Your task to perform on an android device: Search for top rated sushi restaurant Image 0: 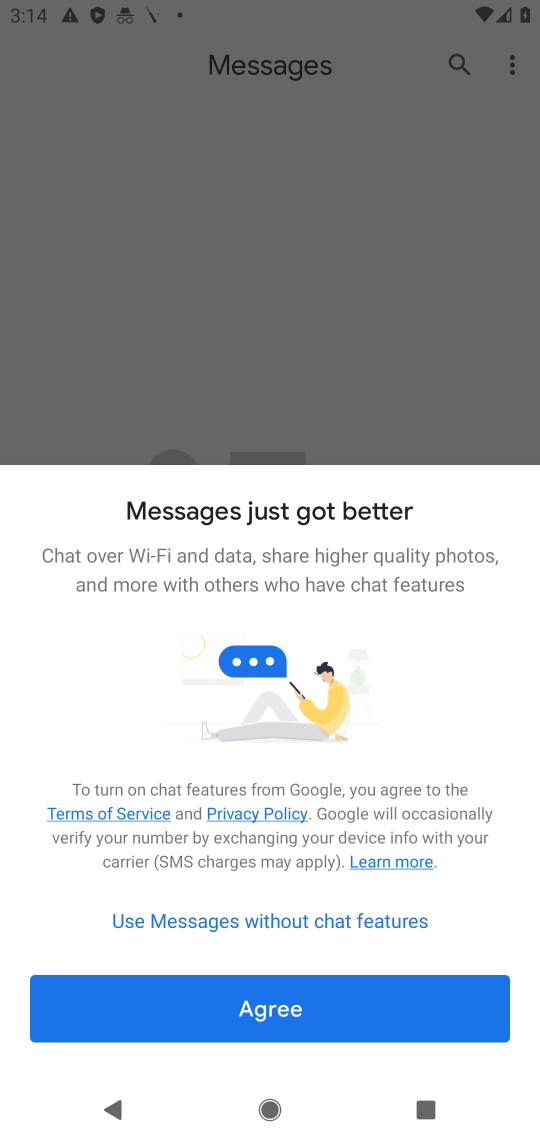
Step 0: press home button
Your task to perform on an android device: Search for top rated sushi restaurant Image 1: 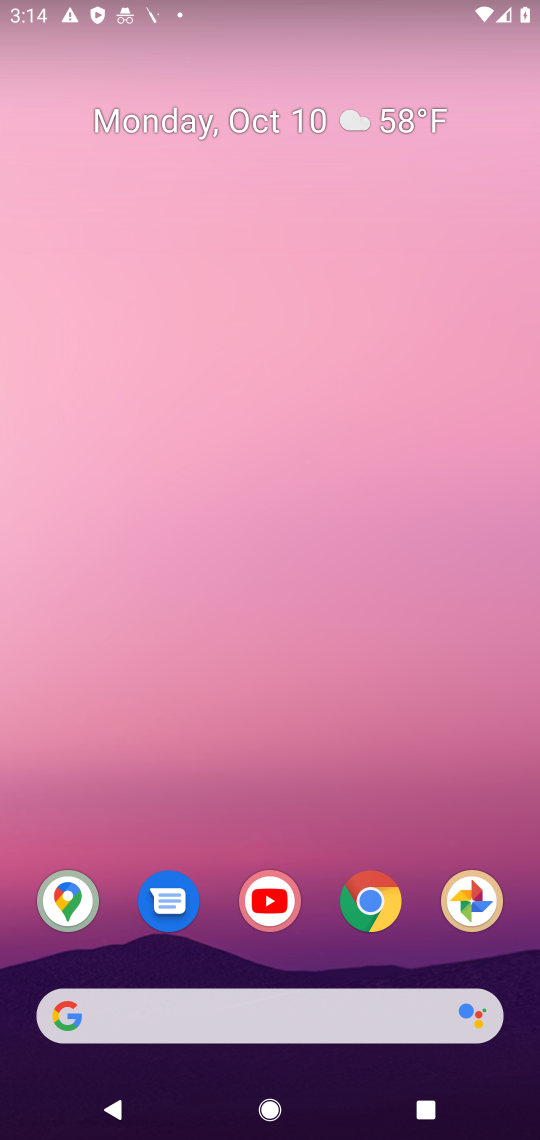
Step 1: drag from (278, 610) to (345, 239)
Your task to perform on an android device: Search for top rated sushi restaurant Image 2: 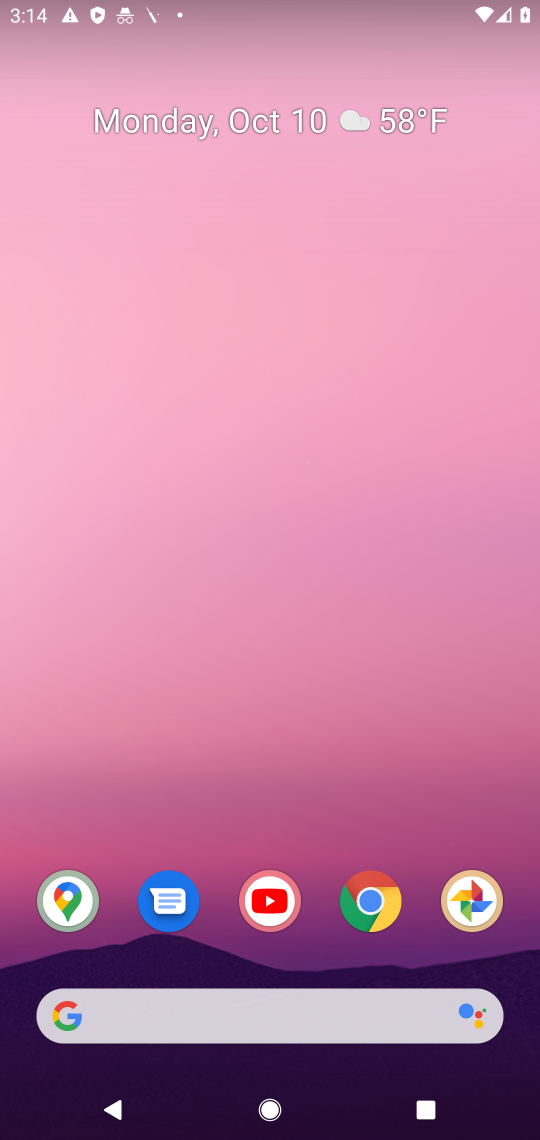
Step 2: drag from (326, 998) to (326, 210)
Your task to perform on an android device: Search for top rated sushi restaurant Image 3: 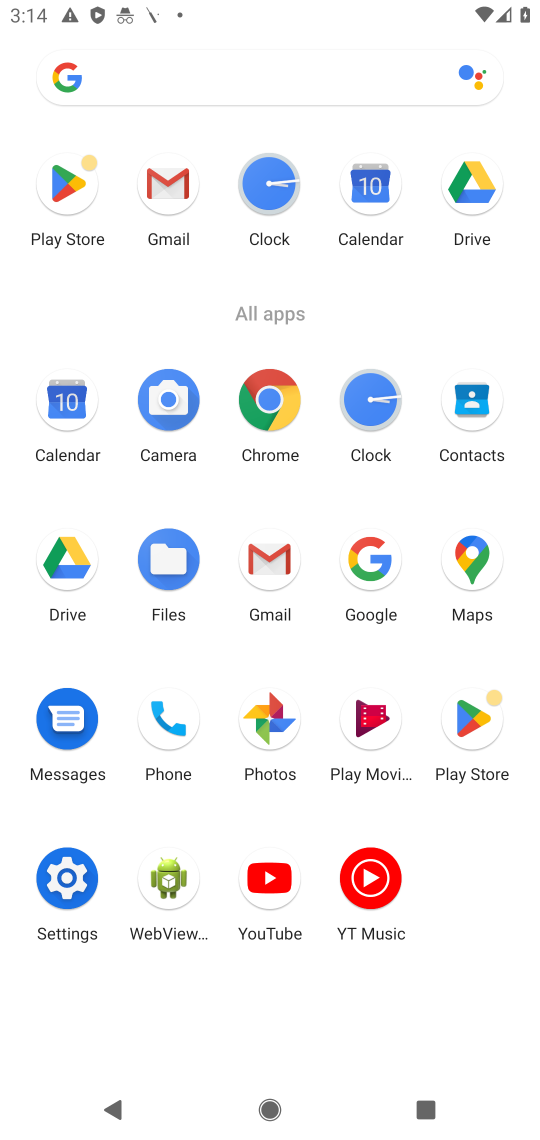
Step 3: click (370, 591)
Your task to perform on an android device: Search for top rated sushi restaurant Image 4: 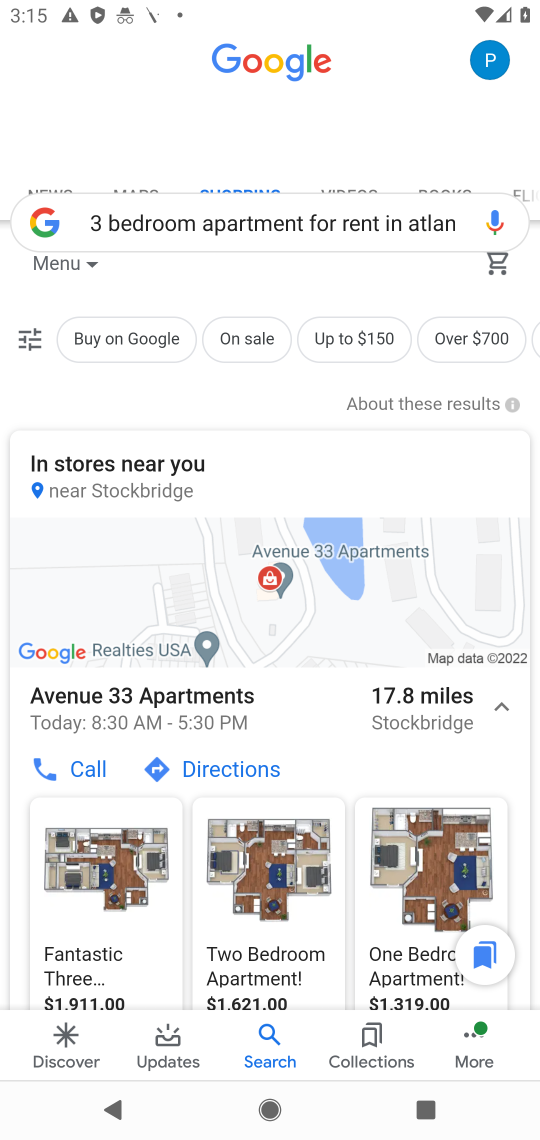
Step 4: click (387, 230)
Your task to perform on an android device: Search for top rated sushi restaurant Image 5: 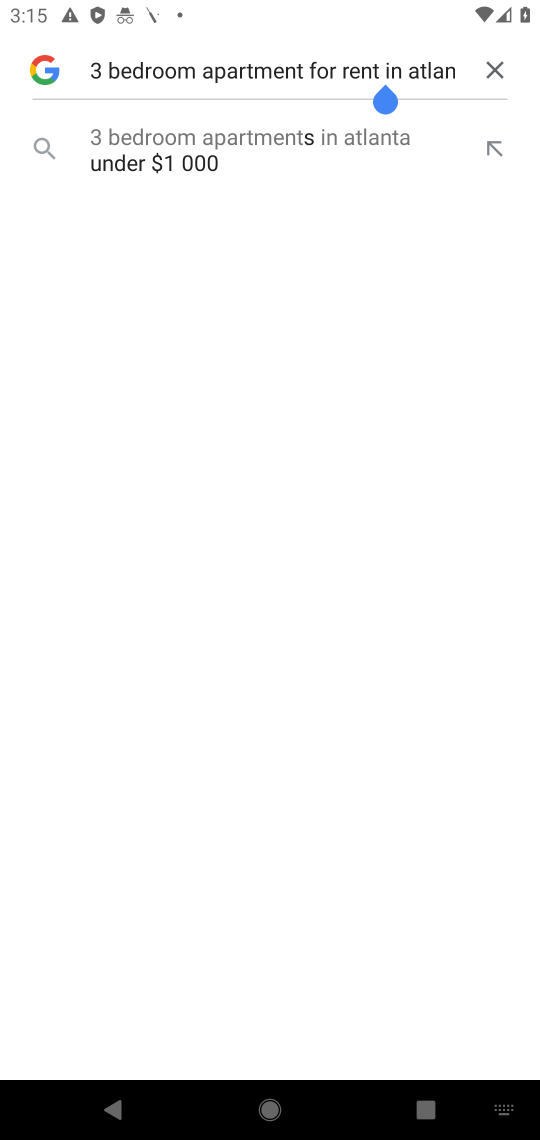
Step 5: click (494, 76)
Your task to perform on an android device: Search for top rated sushi restaurant Image 6: 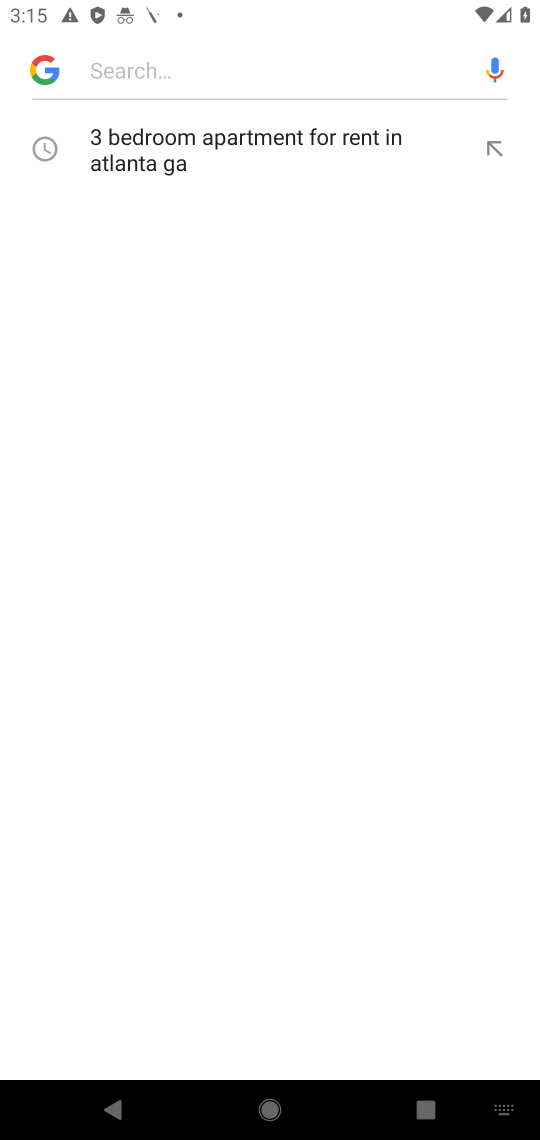
Step 6: type "top rated sushi restaurant"
Your task to perform on an android device: Search for top rated sushi restaurant Image 7: 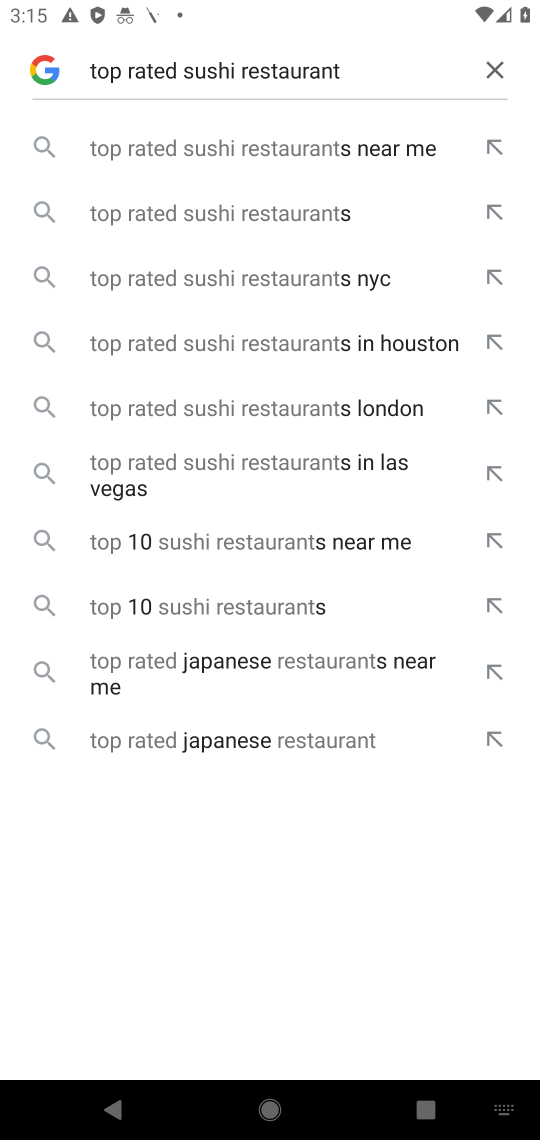
Step 7: click (293, 215)
Your task to perform on an android device: Search for top rated sushi restaurant Image 8: 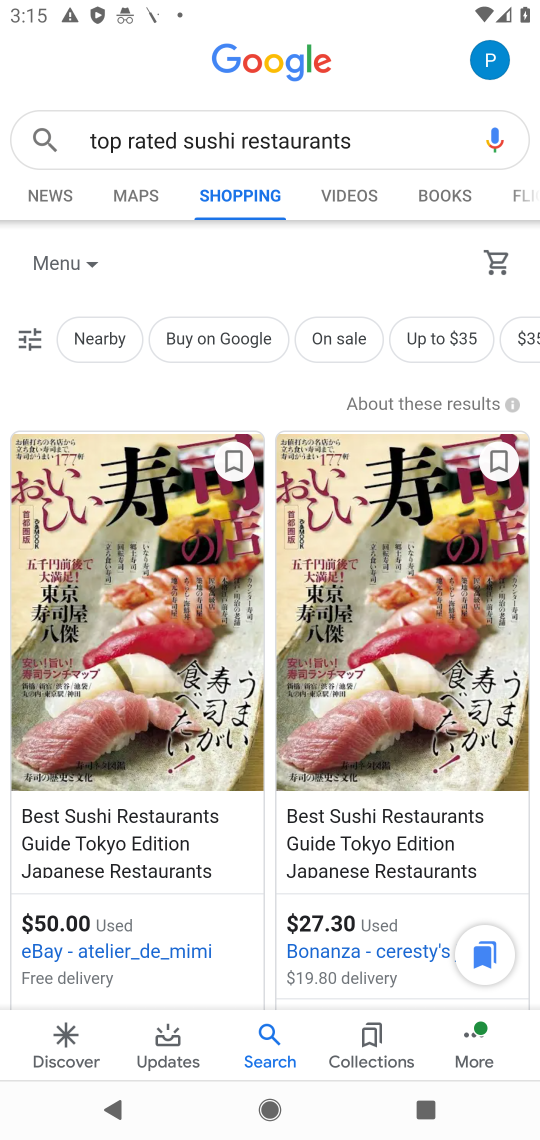
Step 8: task complete